Your task to perform on an android device: Go to calendar. Show me events next week Image 0: 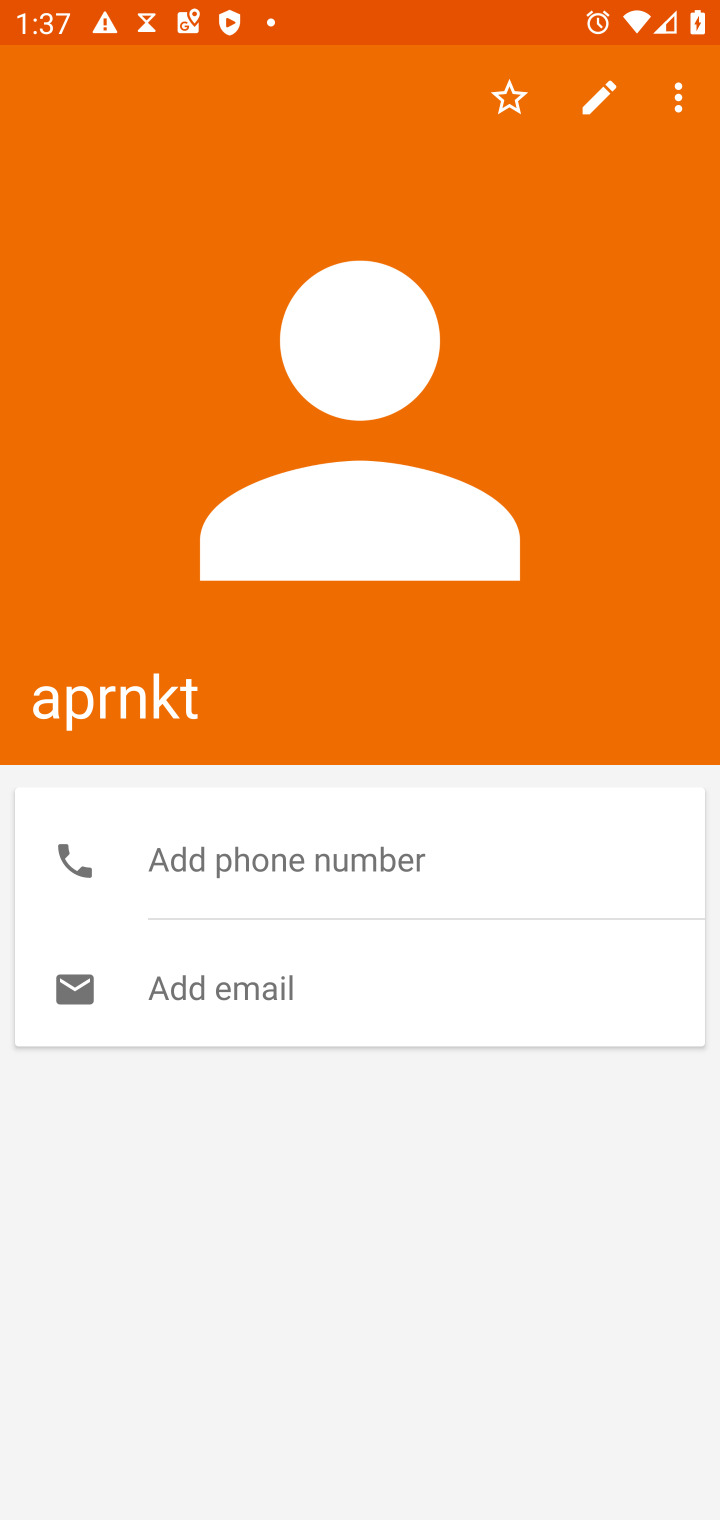
Step 0: press home button
Your task to perform on an android device: Go to calendar. Show me events next week Image 1: 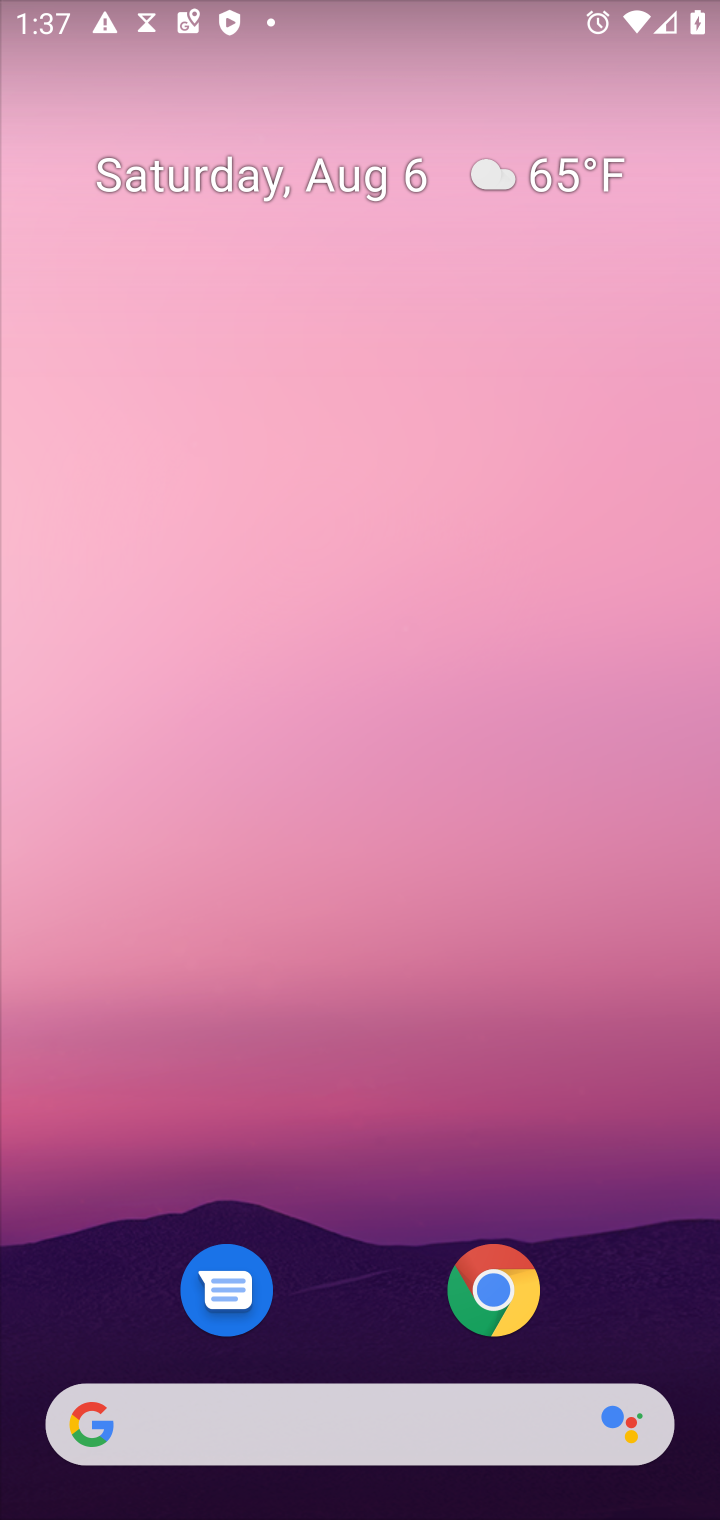
Step 1: drag from (354, 1288) to (419, 162)
Your task to perform on an android device: Go to calendar. Show me events next week Image 2: 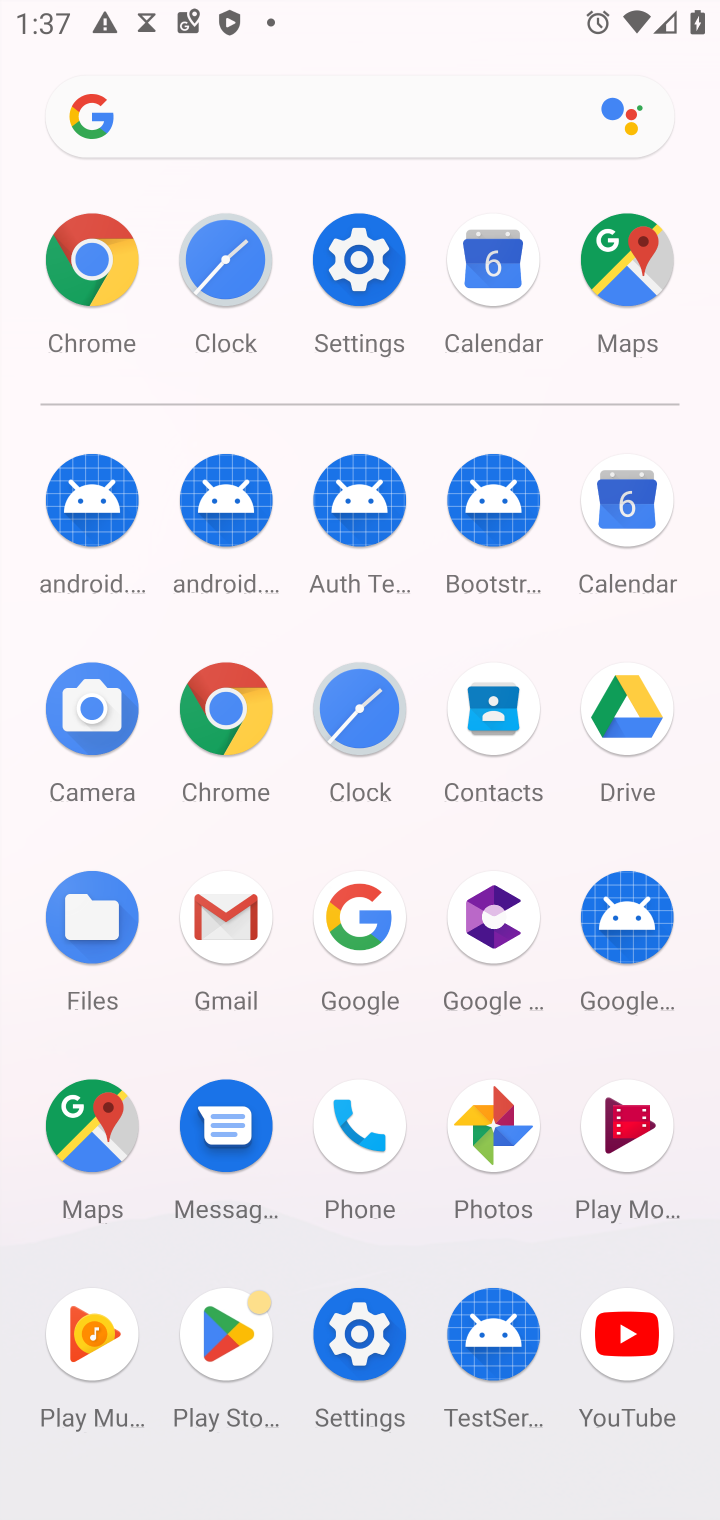
Step 2: click (632, 510)
Your task to perform on an android device: Go to calendar. Show me events next week Image 3: 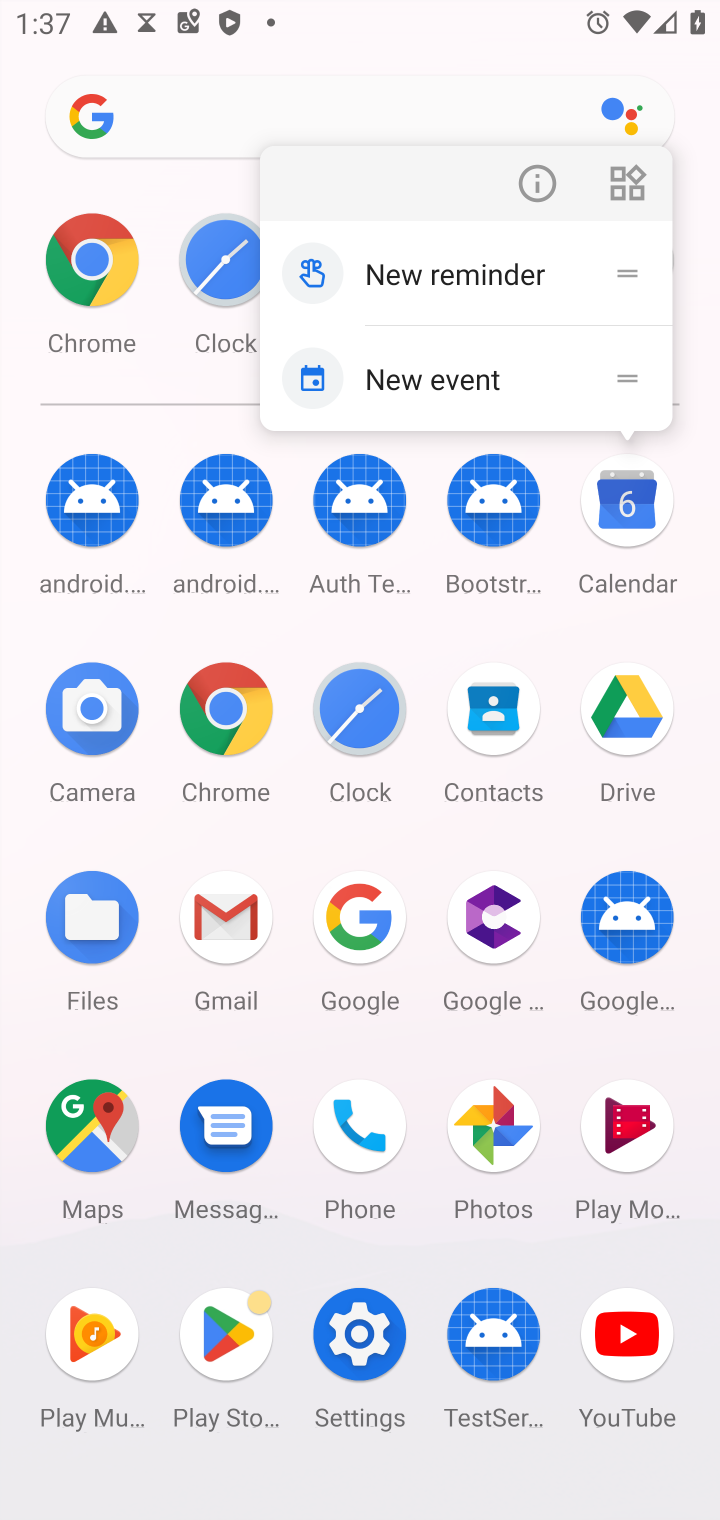
Step 3: click (636, 518)
Your task to perform on an android device: Go to calendar. Show me events next week Image 4: 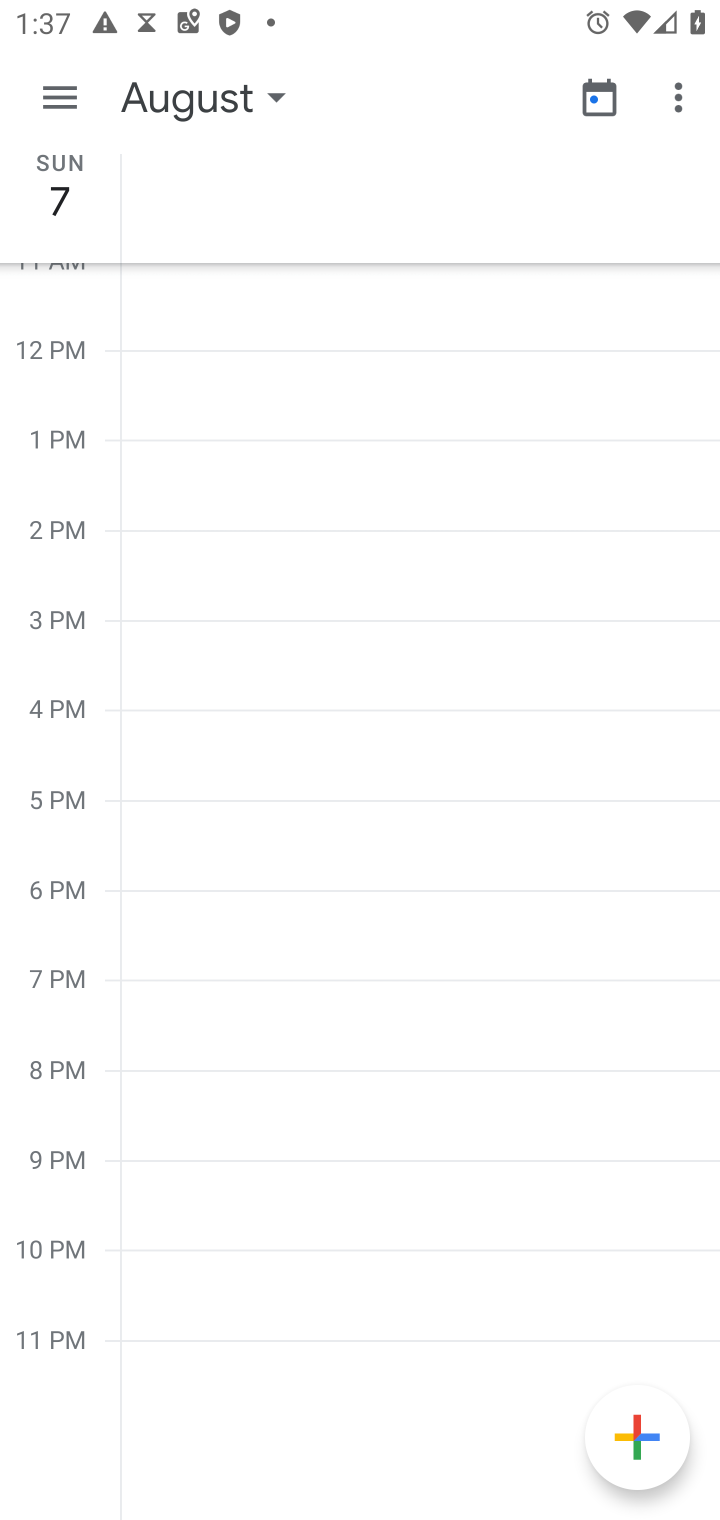
Step 4: click (44, 98)
Your task to perform on an android device: Go to calendar. Show me events next week Image 5: 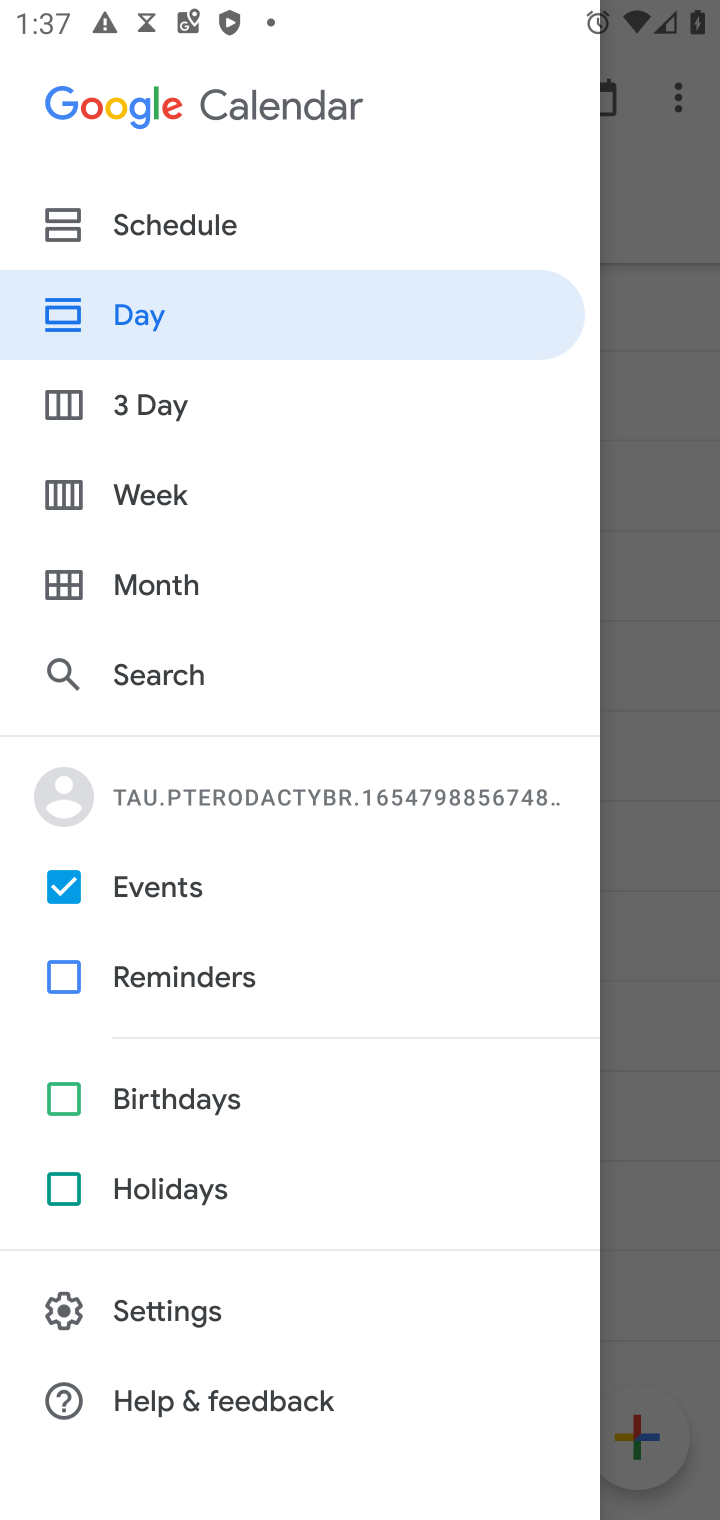
Step 5: click (122, 483)
Your task to perform on an android device: Go to calendar. Show me events next week Image 6: 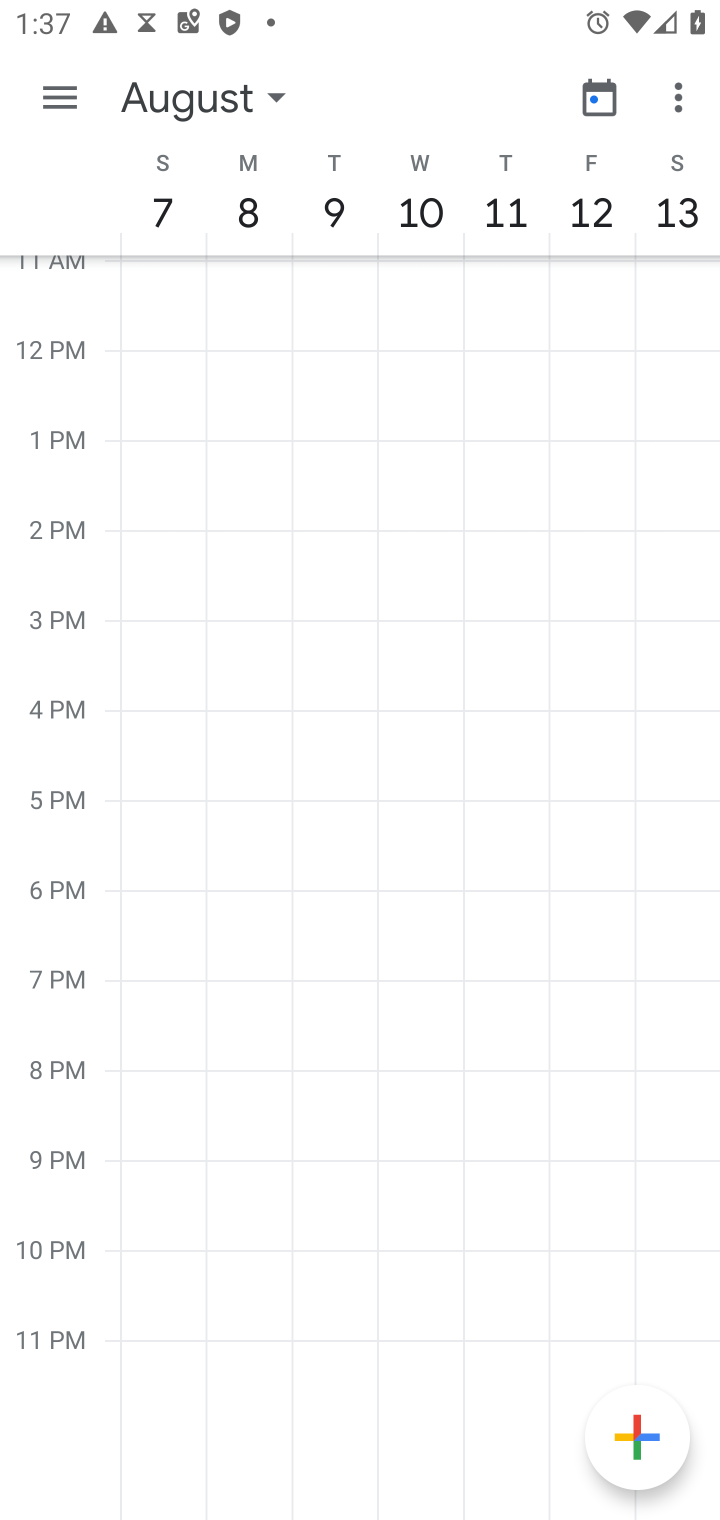
Step 6: drag from (657, 201) to (90, 213)
Your task to perform on an android device: Go to calendar. Show me events next week Image 7: 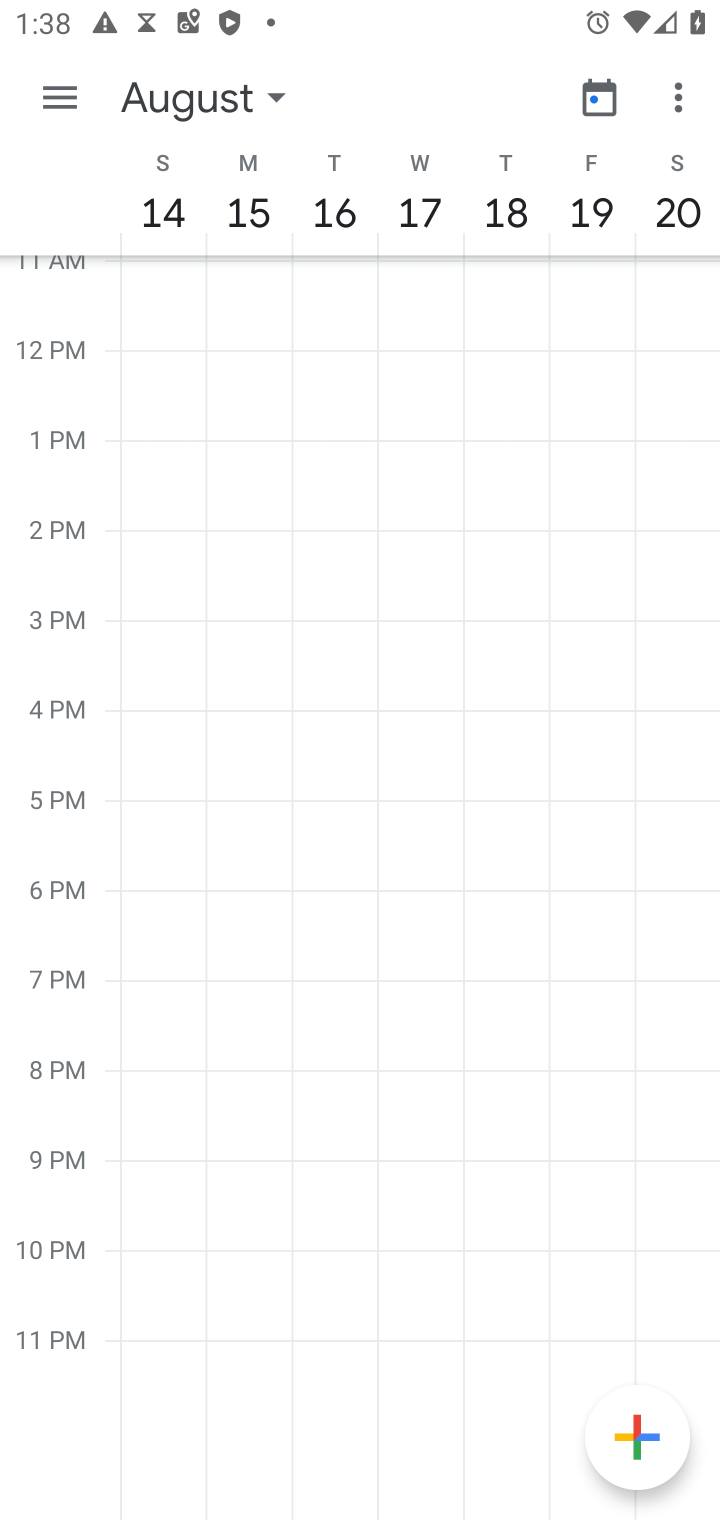
Step 7: drag from (164, 215) to (650, 203)
Your task to perform on an android device: Go to calendar. Show me events next week Image 8: 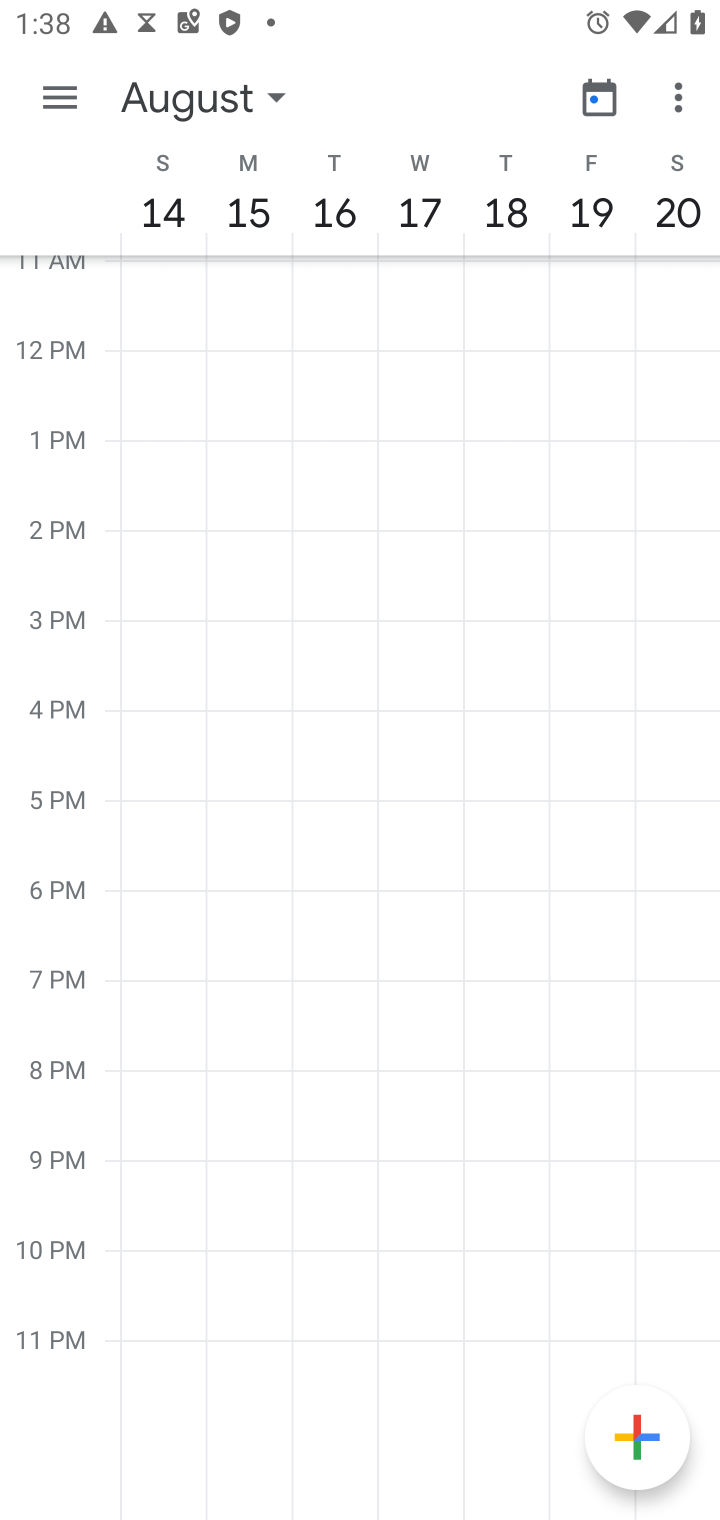
Step 8: click (150, 190)
Your task to perform on an android device: Go to calendar. Show me events next week Image 9: 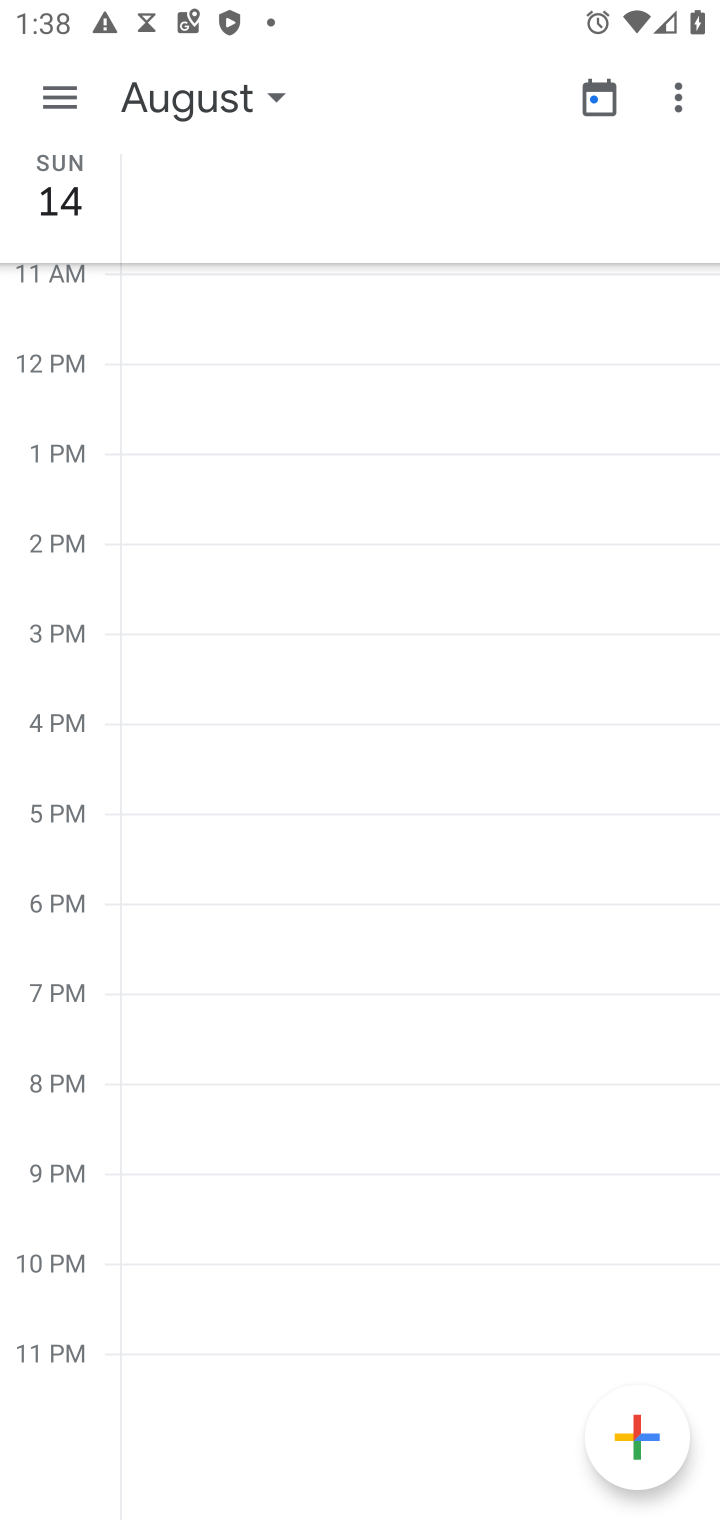
Step 9: click (72, 220)
Your task to perform on an android device: Go to calendar. Show me events next week Image 10: 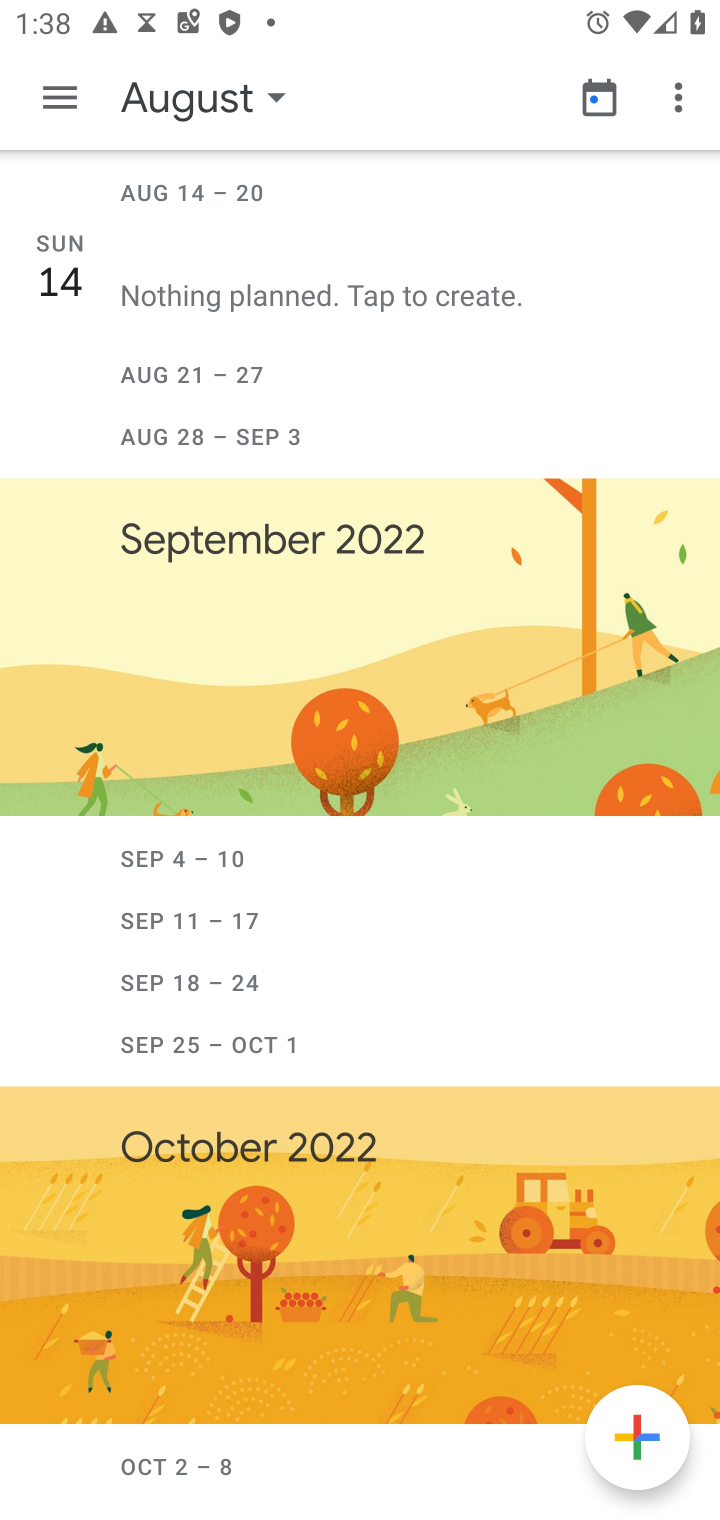
Step 10: task complete